Your task to perform on an android device: Check the weather Image 0: 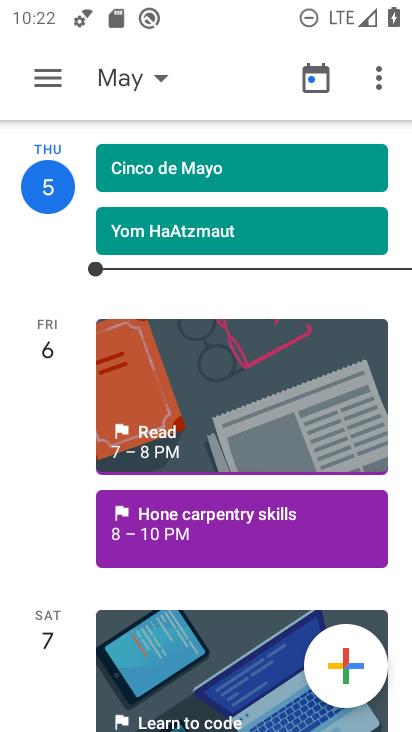
Step 0: press home button
Your task to perform on an android device: Check the weather Image 1: 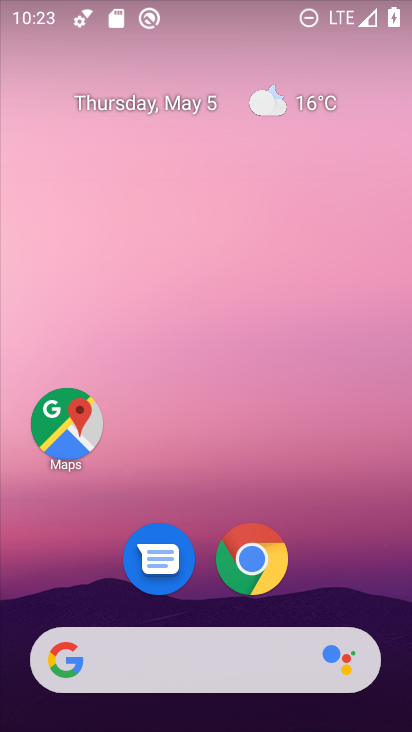
Step 1: click (327, 102)
Your task to perform on an android device: Check the weather Image 2: 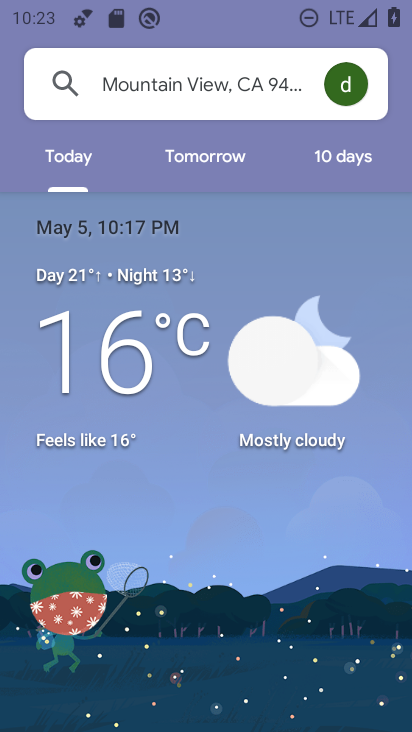
Step 2: task complete